Your task to perform on an android device: set an alarm Image 0: 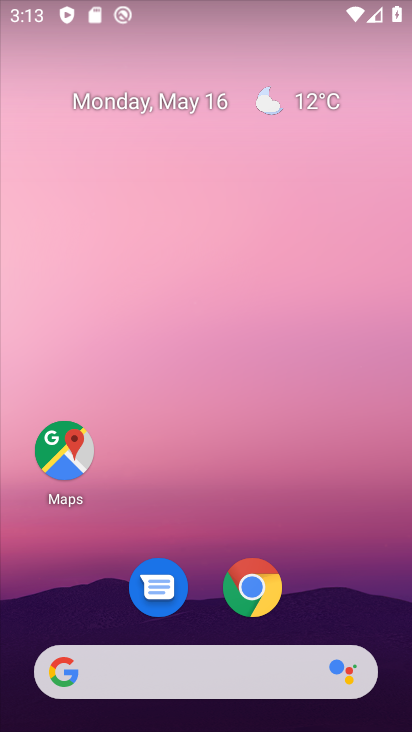
Step 0: drag from (395, 527) to (388, 191)
Your task to perform on an android device: set an alarm Image 1: 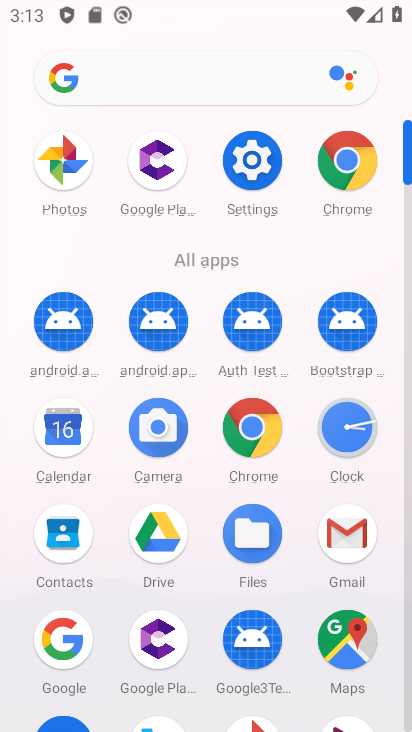
Step 1: click (345, 434)
Your task to perform on an android device: set an alarm Image 2: 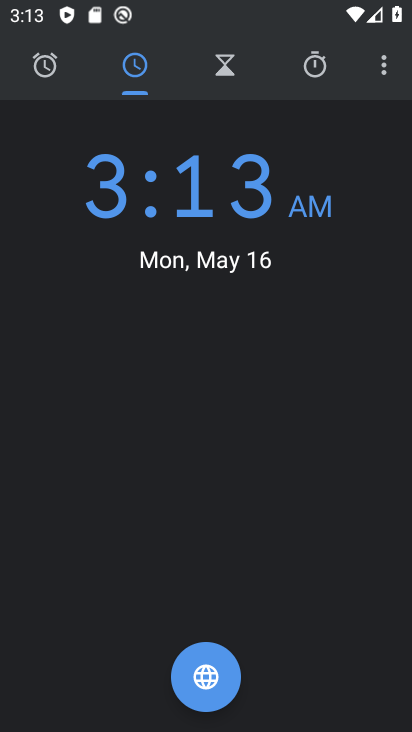
Step 2: click (58, 62)
Your task to perform on an android device: set an alarm Image 3: 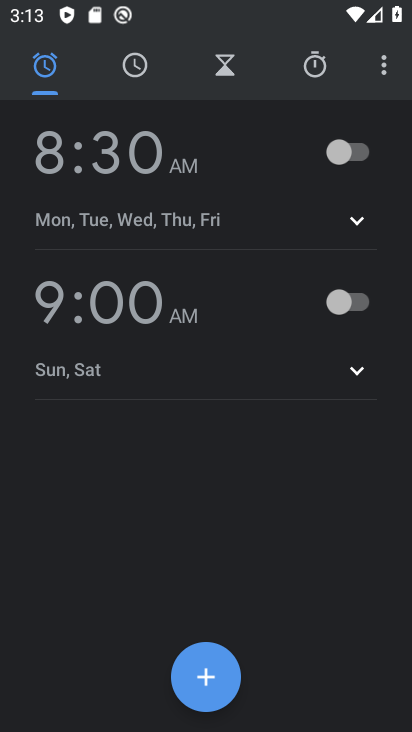
Step 3: click (353, 153)
Your task to perform on an android device: set an alarm Image 4: 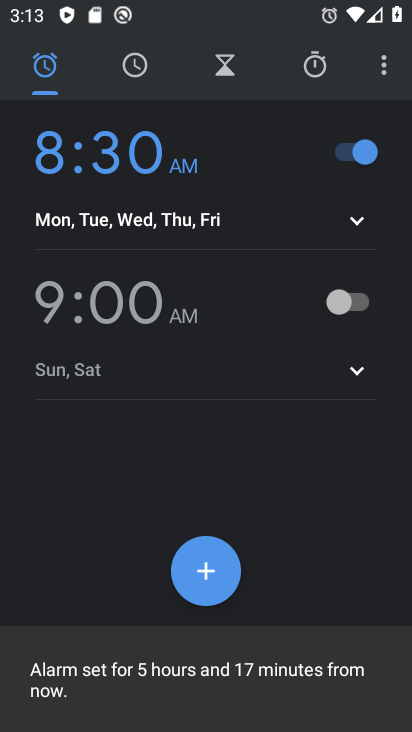
Step 4: task complete